Your task to perform on an android device: Open maps Image 0: 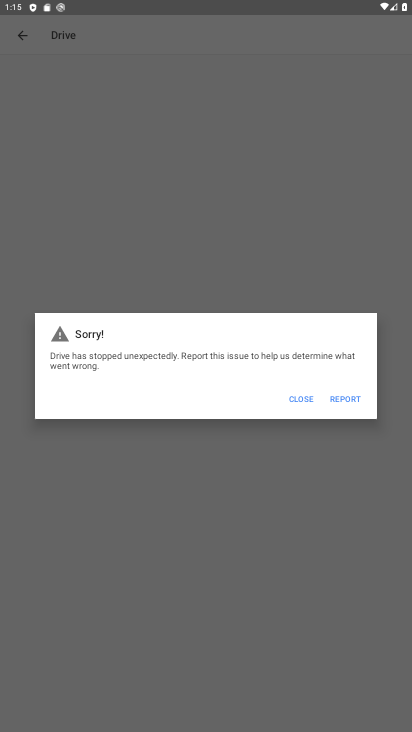
Step 0: press home button
Your task to perform on an android device: Open maps Image 1: 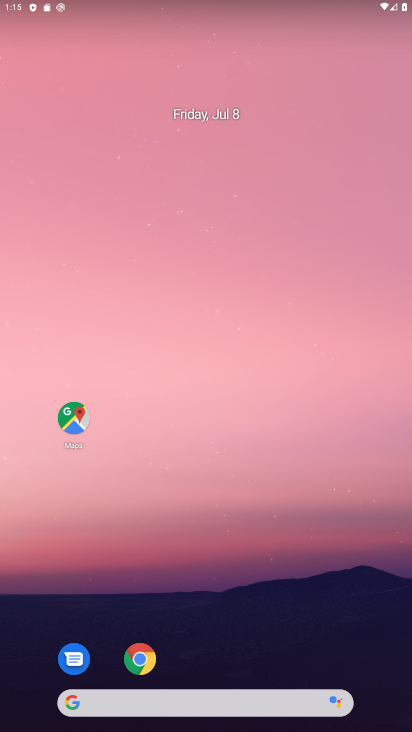
Step 1: click (74, 415)
Your task to perform on an android device: Open maps Image 2: 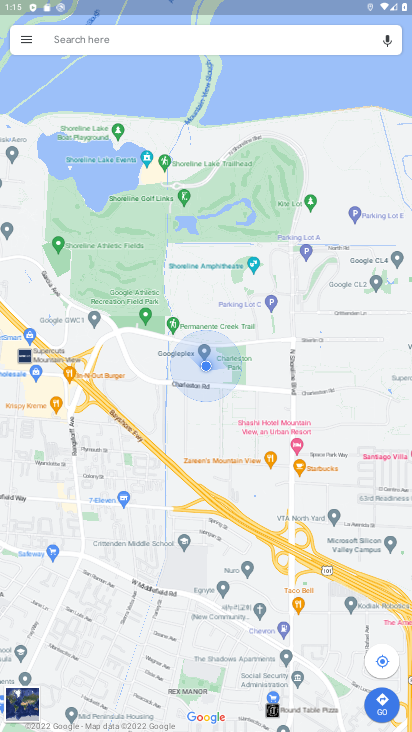
Step 2: task complete